Your task to perform on an android device: Open settings on Google Maps Image 0: 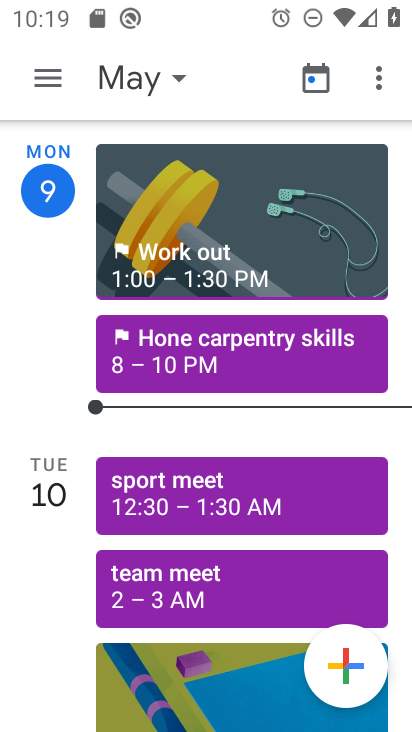
Step 0: press home button
Your task to perform on an android device: Open settings on Google Maps Image 1: 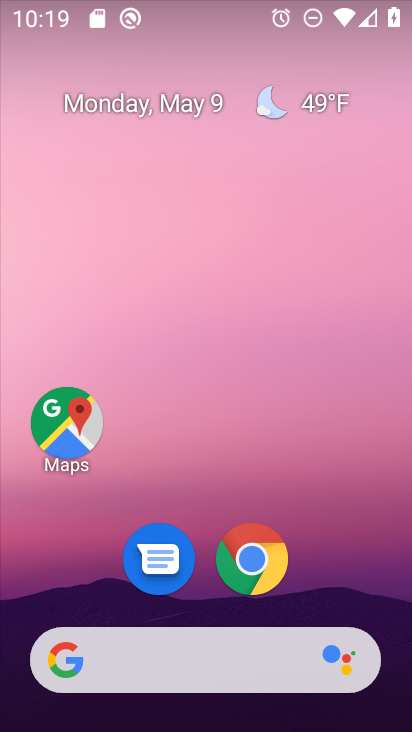
Step 1: drag from (217, 720) to (219, 231)
Your task to perform on an android device: Open settings on Google Maps Image 2: 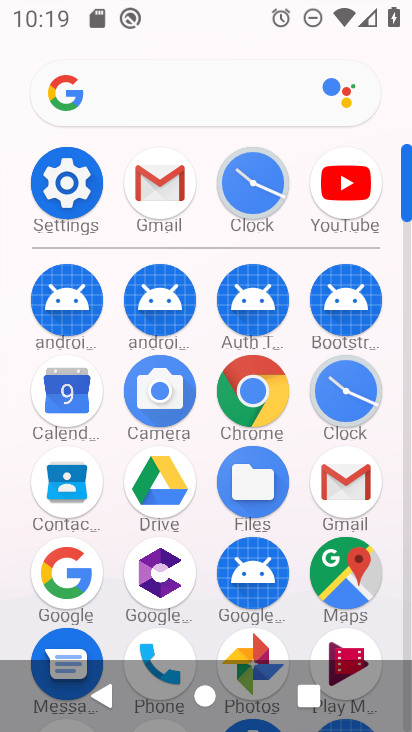
Step 2: click (337, 578)
Your task to perform on an android device: Open settings on Google Maps Image 3: 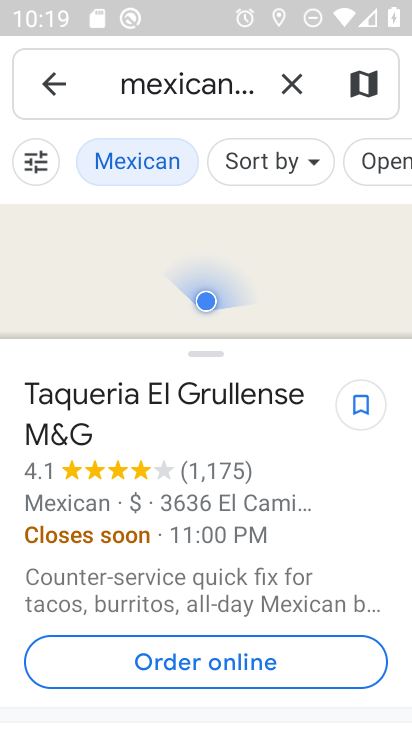
Step 3: click (52, 88)
Your task to perform on an android device: Open settings on Google Maps Image 4: 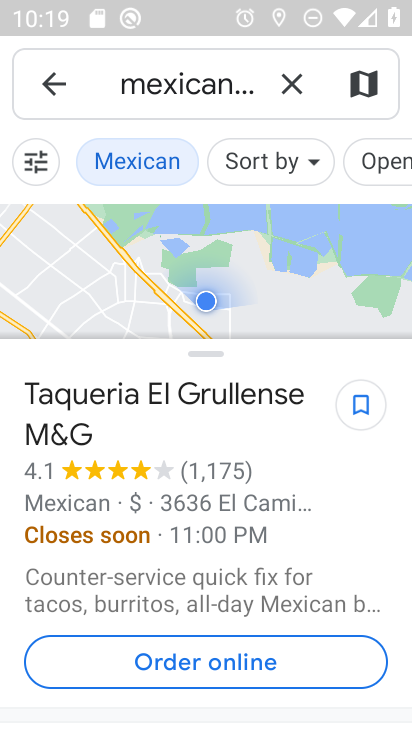
Step 4: click (54, 74)
Your task to perform on an android device: Open settings on Google Maps Image 5: 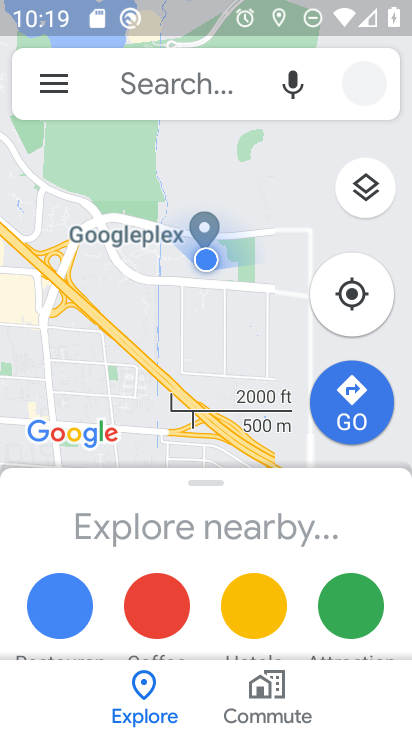
Step 5: click (54, 82)
Your task to perform on an android device: Open settings on Google Maps Image 6: 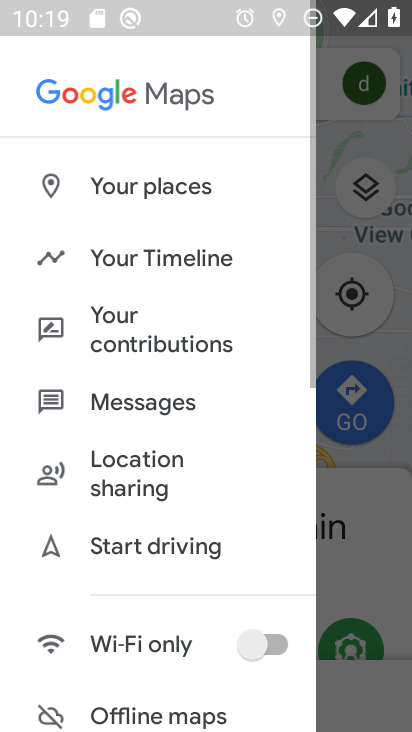
Step 6: click (50, 79)
Your task to perform on an android device: Open settings on Google Maps Image 7: 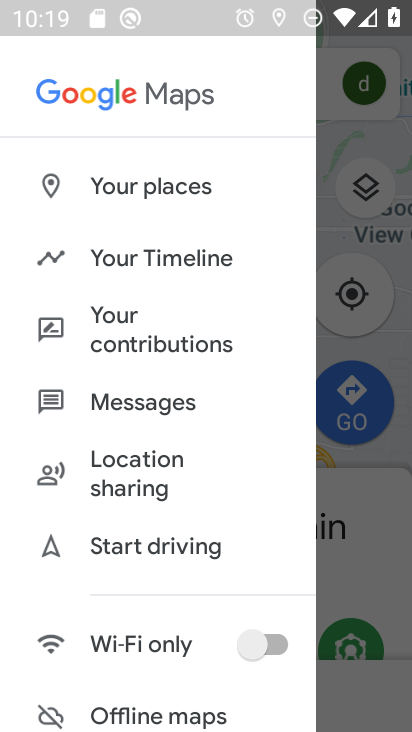
Step 7: drag from (132, 647) to (146, 218)
Your task to perform on an android device: Open settings on Google Maps Image 8: 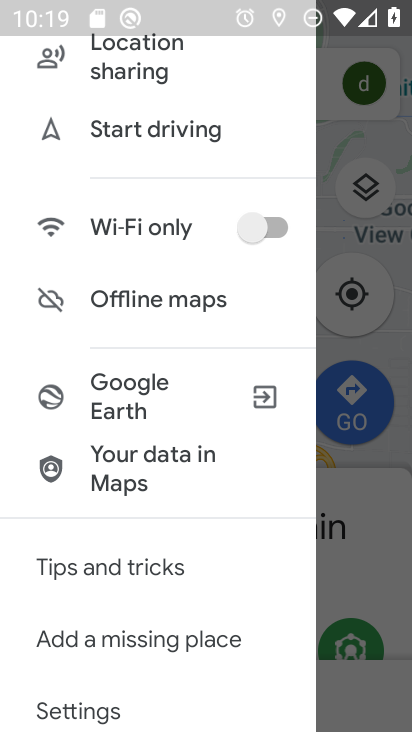
Step 8: click (104, 702)
Your task to perform on an android device: Open settings on Google Maps Image 9: 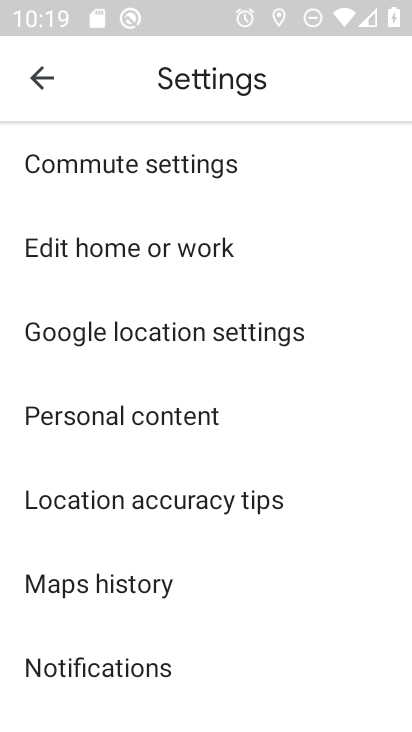
Step 9: task complete